Your task to perform on an android device: see creations saved in the google photos Image 0: 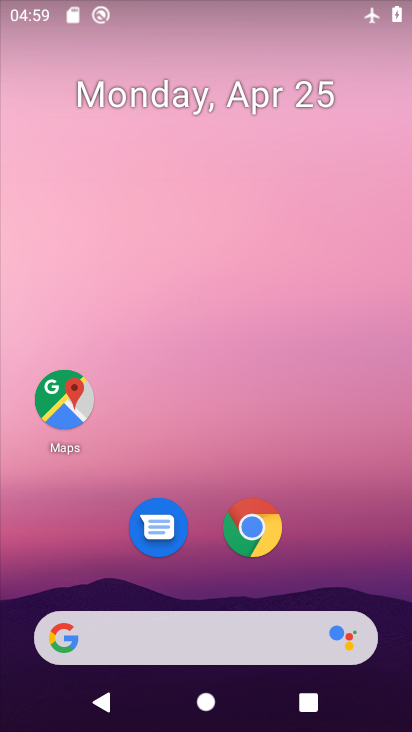
Step 0: drag from (396, 626) to (386, 43)
Your task to perform on an android device: see creations saved in the google photos Image 1: 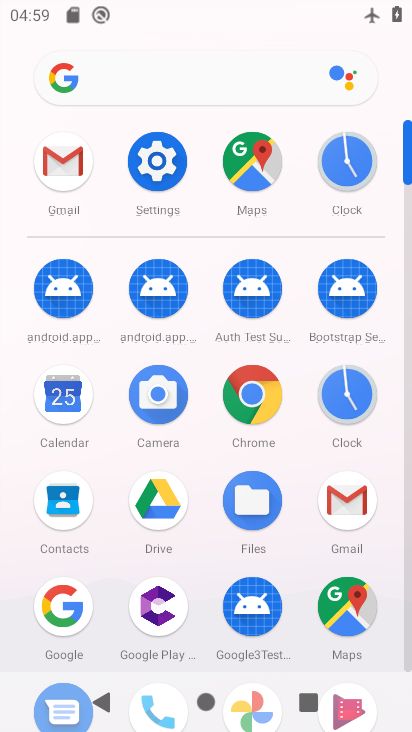
Step 1: click (407, 653)
Your task to perform on an android device: see creations saved in the google photos Image 2: 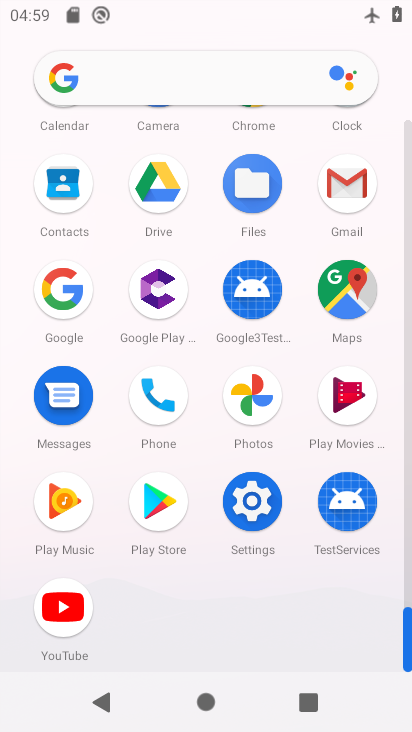
Step 2: click (250, 397)
Your task to perform on an android device: see creations saved in the google photos Image 3: 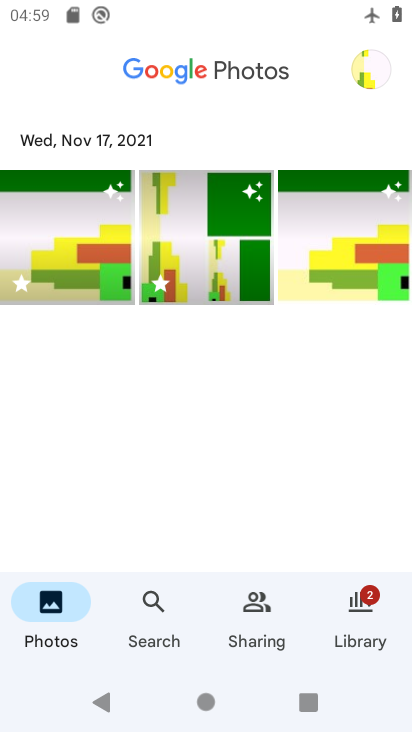
Step 3: task complete